Your task to perform on an android device: turn on bluetooth scan Image 0: 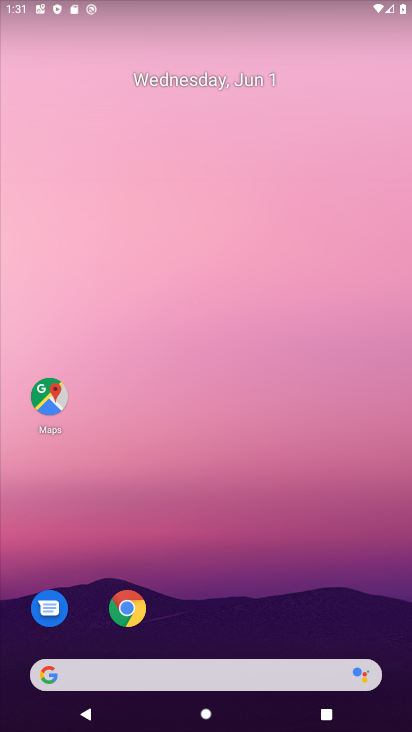
Step 0: drag from (193, 619) to (172, 285)
Your task to perform on an android device: turn on bluetooth scan Image 1: 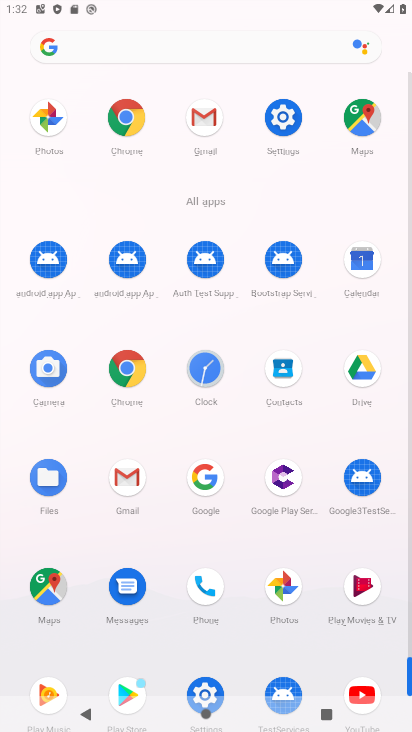
Step 1: drag from (187, 604) to (275, 3)
Your task to perform on an android device: turn on bluetooth scan Image 2: 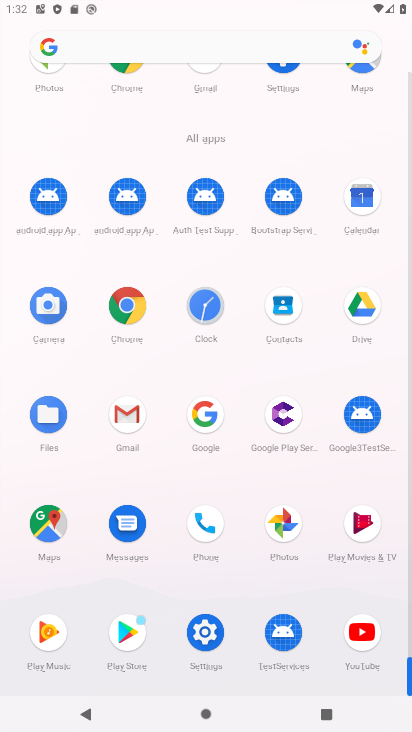
Step 2: click (204, 649)
Your task to perform on an android device: turn on bluetooth scan Image 3: 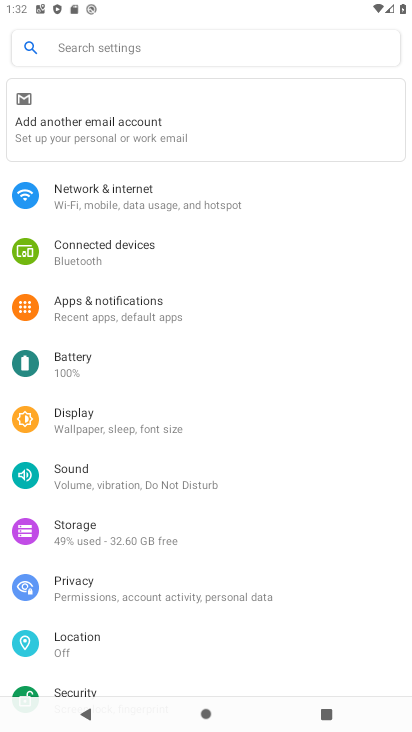
Step 3: click (75, 646)
Your task to perform on an android device: turn on bluetooth scan Image 4: 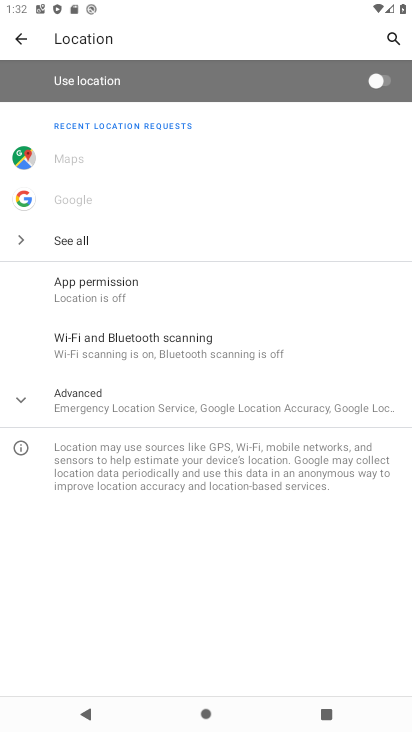
Step 4: click (85, 411)
Your task to perform on an android device: turn on bluetooth scan Image 5: 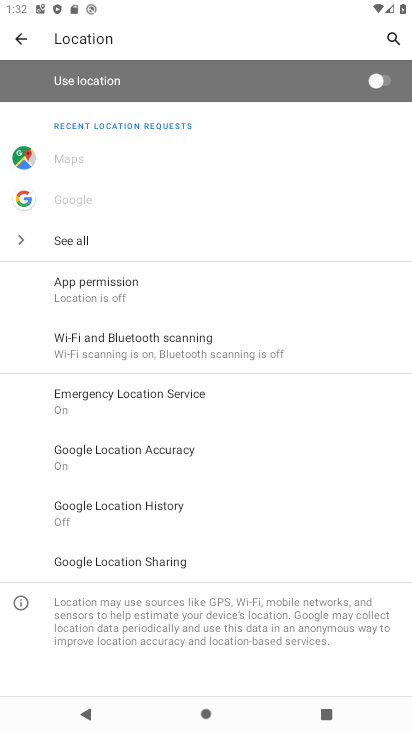
Step 5: click (143, 341)
Your task to perform on an android device: turn on bluetooth scan Image 6: 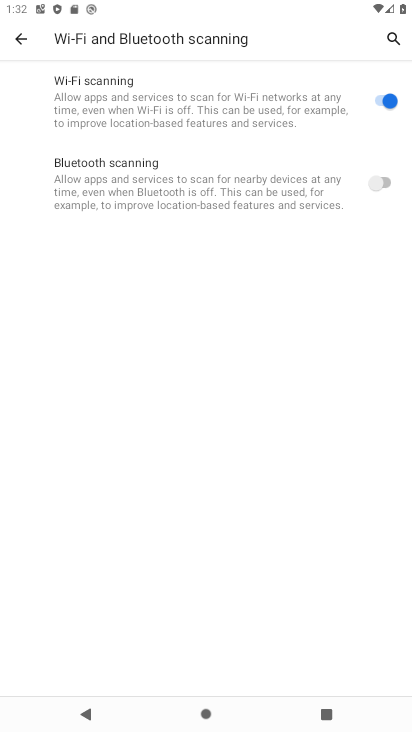
Step 6: click (386, 191)
Your task to perform on an android device: turn on bluetooth scan Image 7: 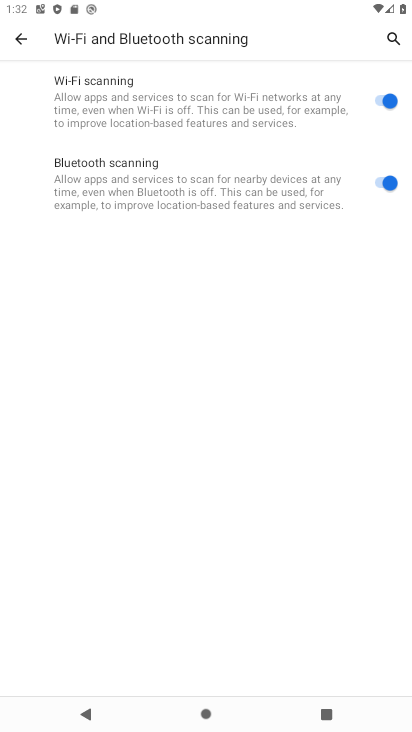
Step 7: task complete